Your task to perform on an android device: empty trash in the gmail app Image 0: 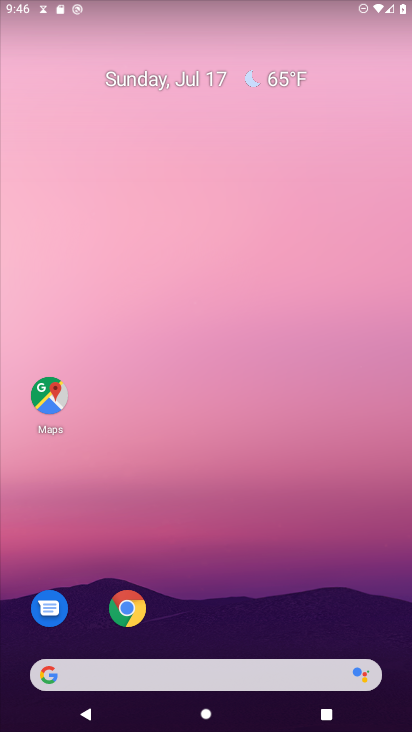
Step 0: drag from (236, 667) to (240, 238)
Your task to perform on an android device: empty trash in the gmail app Image 1: 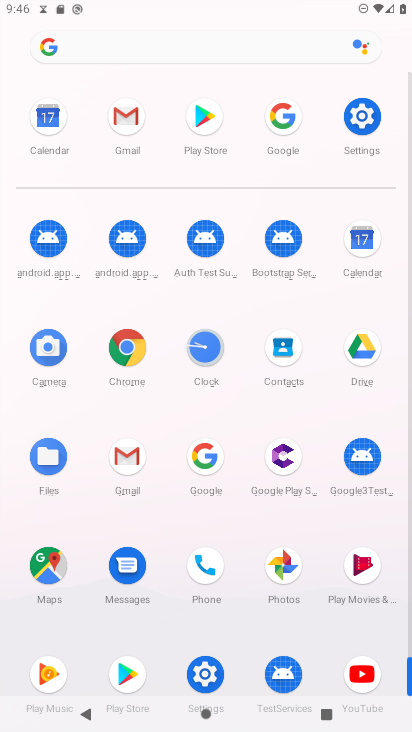
Step 1: click (127, 116)
Your task to perform on an android device: empty trash in the gmail app Image 2: 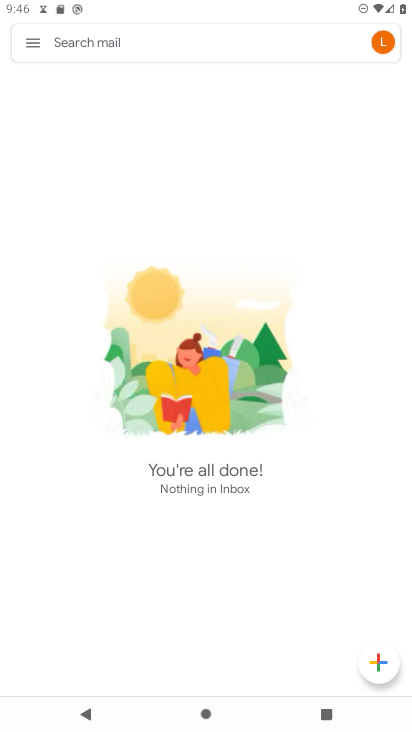
Step 2: click (36, 43)
Your task to perform on an android device: empty trash in the gmail app Image 3: 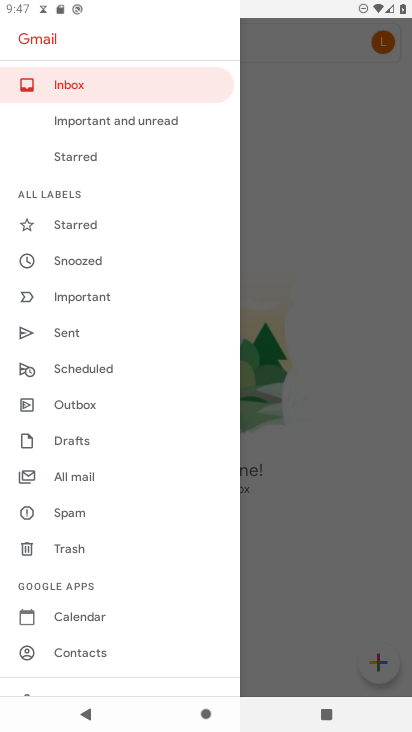
Step 3: click (68, 552)
Your task to perform on an android device: empty trash in the gmail app Image 4: 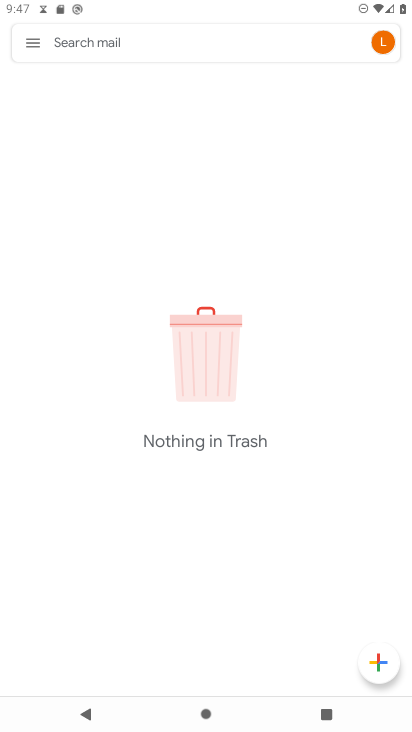
Step 4: task complete